Your task to perform on an android device: Search for pizza restaurants on Maps Image 0: 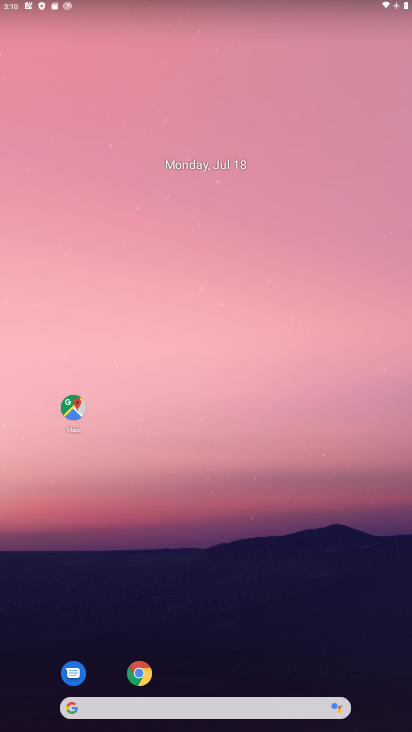
Step 0: drag from (236, 595) to (282, 290)
Your task to perform on an android device: Search for pizza restaurants on Maps Image 1: 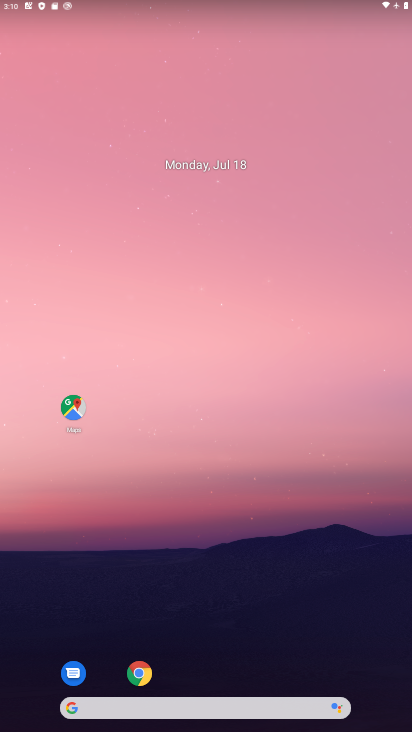
Step 1: click (67, 405)
Your task to perform on an android device: Search for pizza restaurants on Maps Image 2: 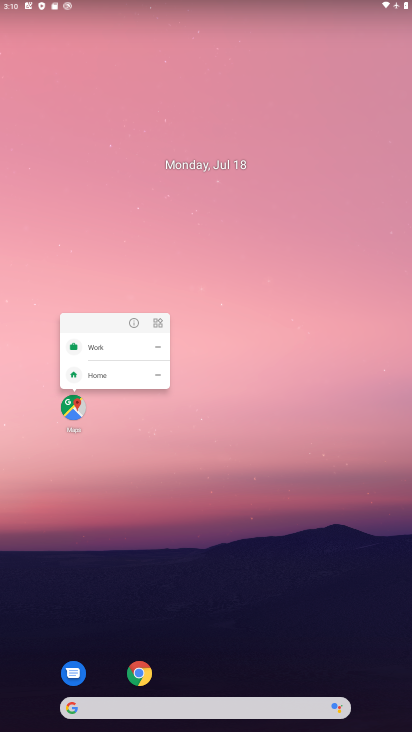
Step 2: click (67, 416)
Your task to perform on an android device: Search for pizza restaurants on Maps Image 3: 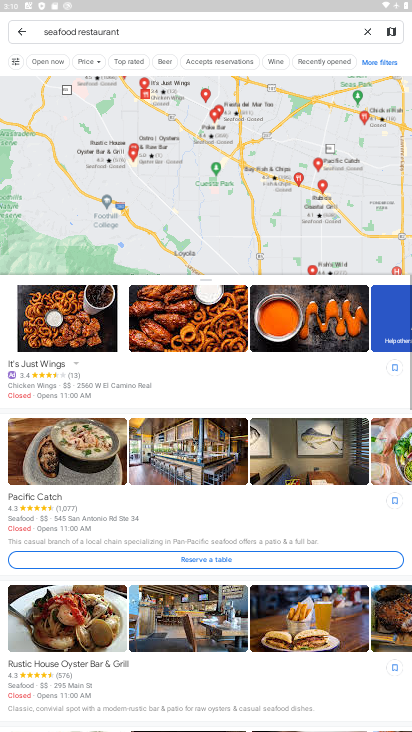
Step 3: click (365, 31)
Your task to perform on an android device: Search for pizza restaurants on Maps Image 4: 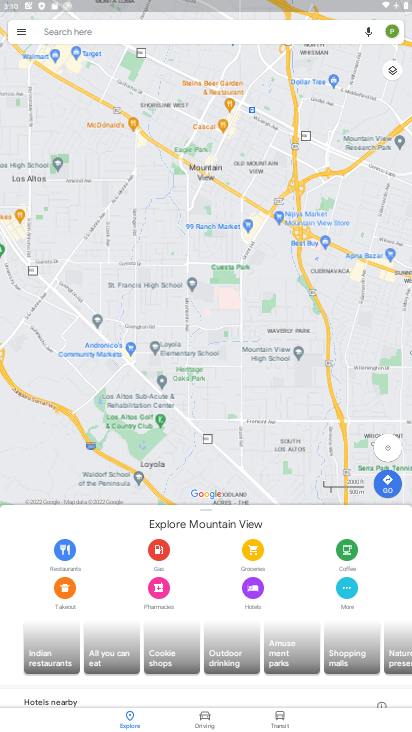
Step 4: click (202, 30)
Your task to perform on an android device: Search for pizza restaurants on Maps Image 5: 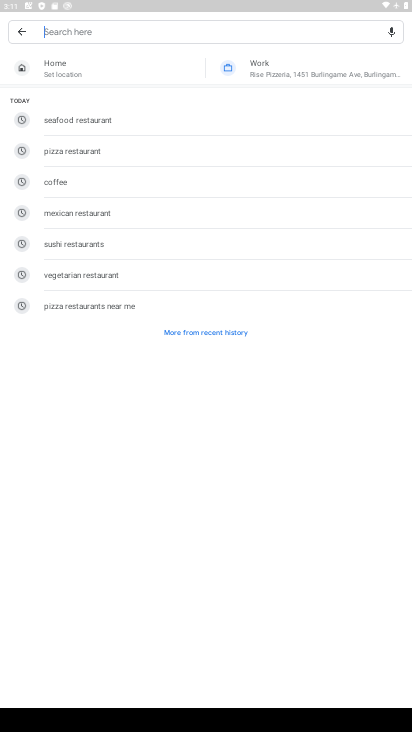
Step 5: click (122, 307)
Your task to perform on an android device: Search for pizza restaurants on Maps Image 6: 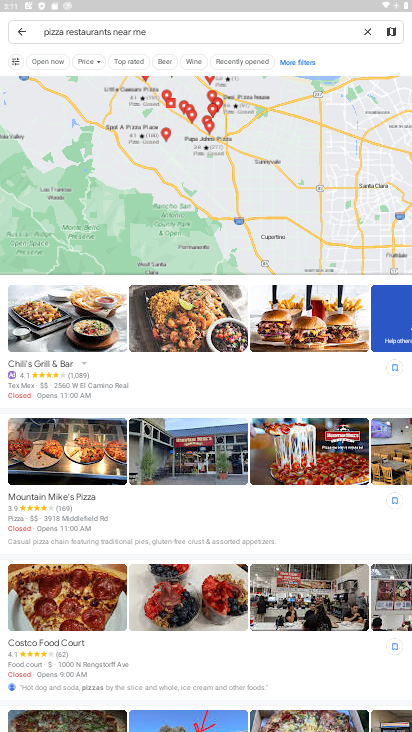
Step 6: task complete